Your task to perform on an android device: turn on the 12-hour format for clock Image 0: 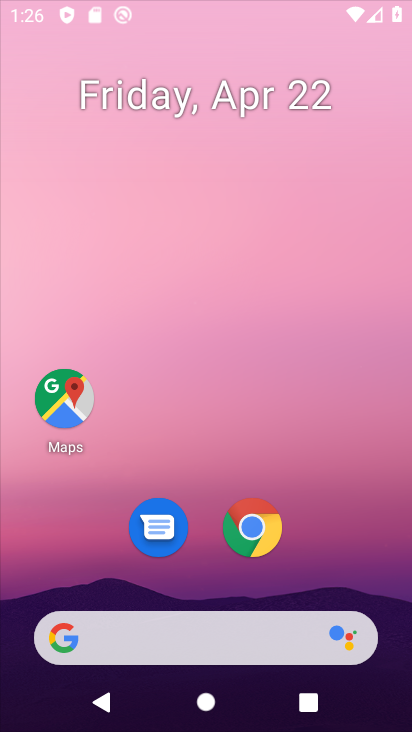
Step 0: click (250, 171)
Your task to perform on an android device: turn on the 12-hour format for clock Image 1: 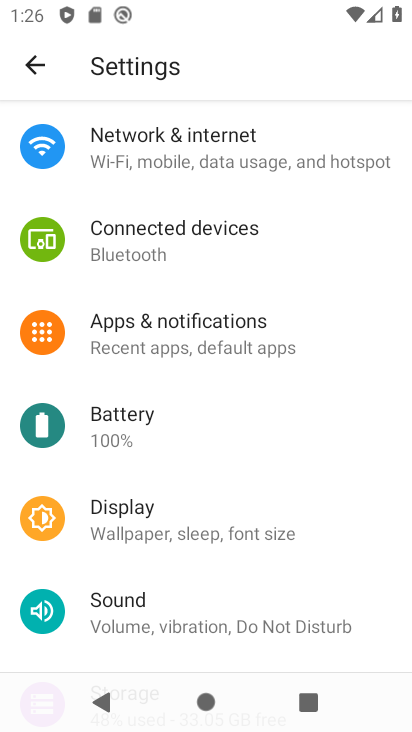
Step 1: click (215, 368)
Your task to perform on an android device: turn on the 12-hour format for clock Image 2: 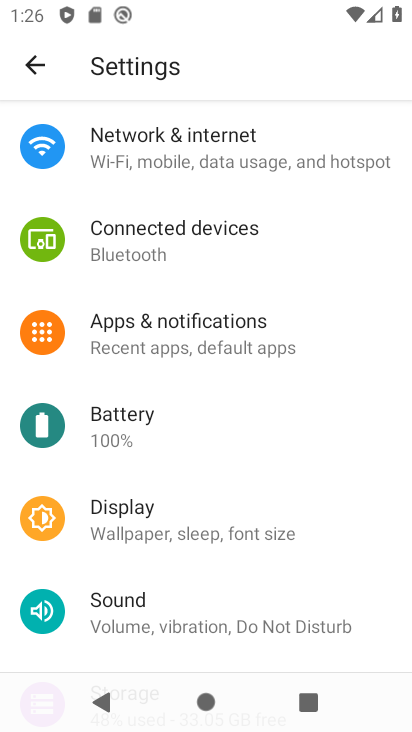
Step 2: drag from (196, 429) to (226, 96)
Your task to perform on an android device: turn on the 12-hour format for clock Image 3: 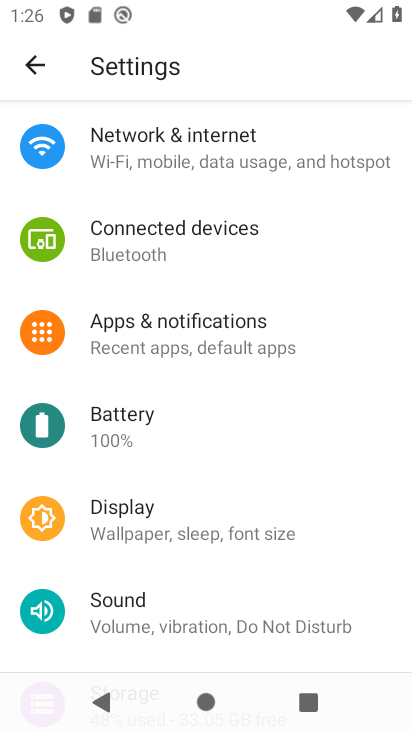
Step 3: press home button
Your task to perform on an android device: turn on the 12-hour format for clock Image 4: 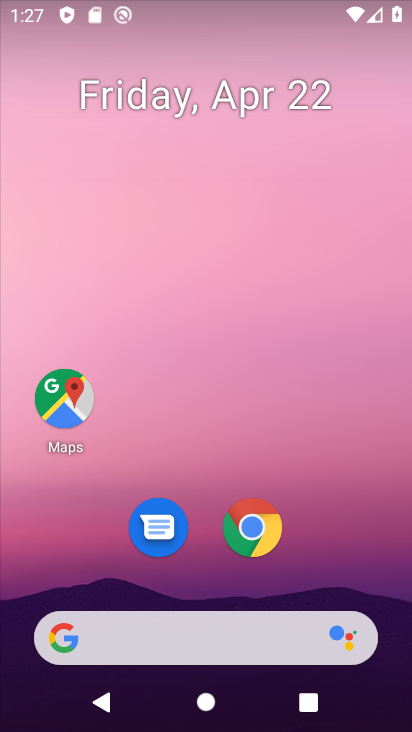
Step 4: drag from (207, 525) to (250, 186)
Your task to perform on an android device: turn on the 12-hour format for clock Image 5: 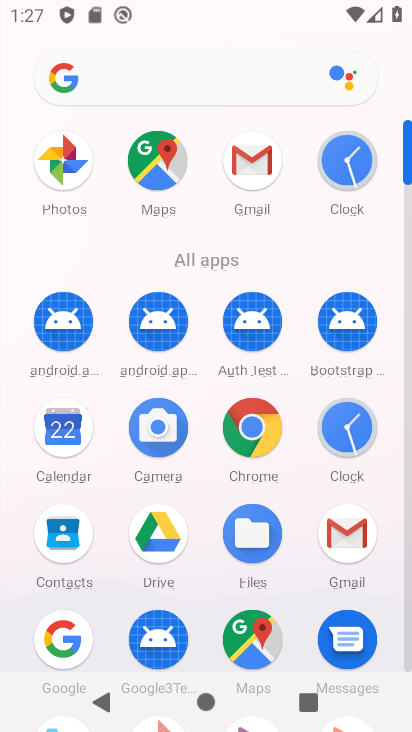
Step 5: drag from (206, 611) to (213, 235)
Your task to perform on an android device: turn on the 12-hour format for clock Image 6: 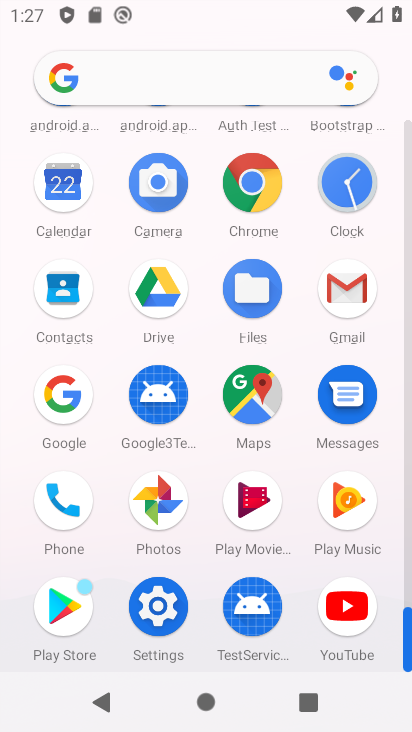
Step 6: click (354, 179)
Your task to perform on an android device: turn on the 12-hour format for clock Image 7: 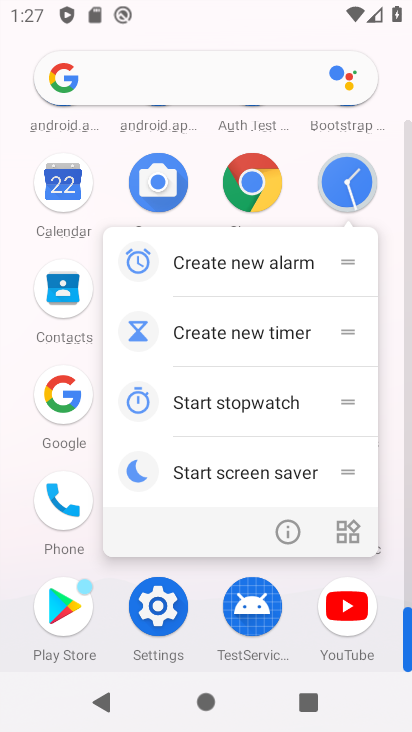
Step 7: click (286, 512)
Your task to perform on an android device: turn on the 12-hour format for clock Image 8: 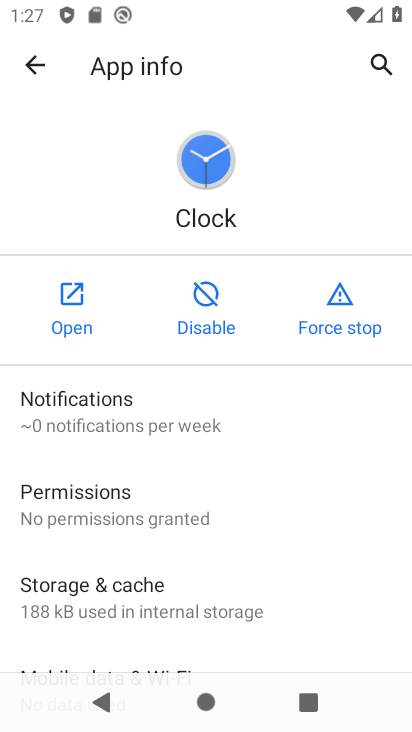
Step 8: click (77, 312)
Your task to perform on an android device: turn on the 12-hour format for clock Image 9: 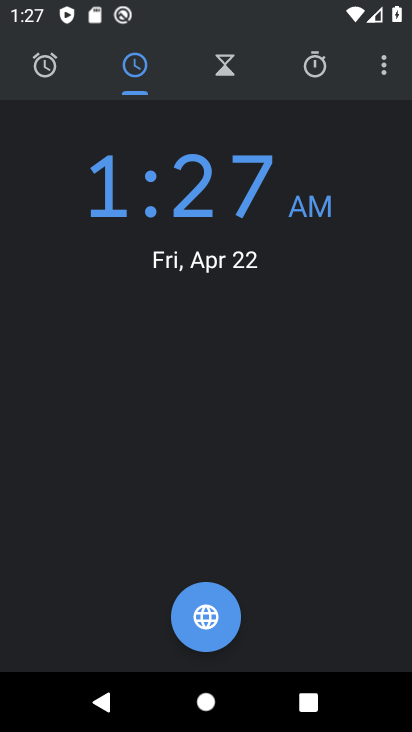
Step 9: click (382, 59)
Your task to perform on an android device: turn on the 12-hour format for clock Image 10: 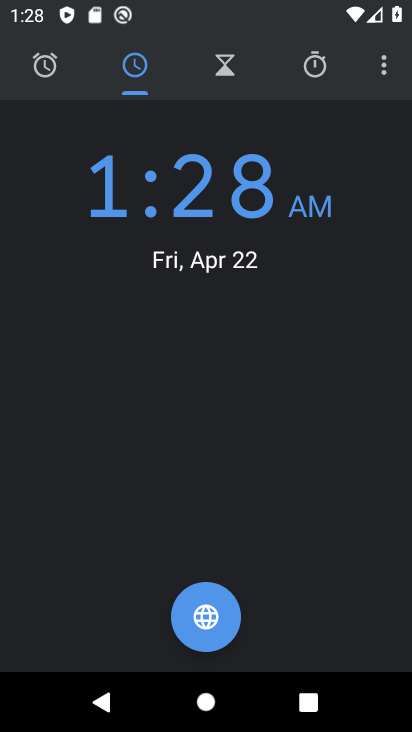
Step 10: click (392, 79)
Your task to perform on an android device: turn on the 12-hour format for clock Image 11: 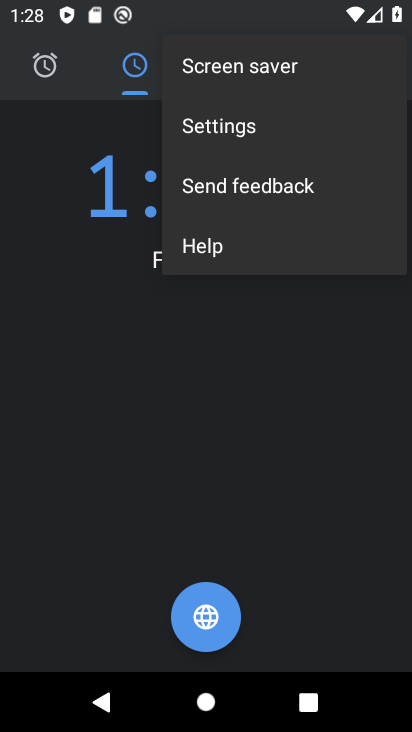
Step 11: click (229, 123)
Your task to perform on an android device: turn on the 12-hour format for clock Image 12: 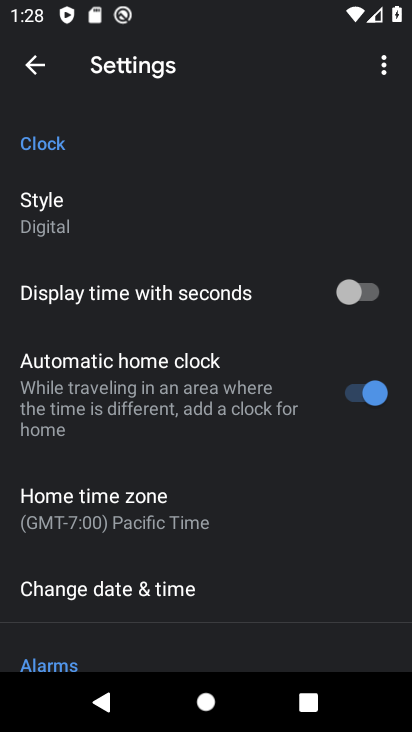
Step 12: click (175, 599)
Your task to perform on an android device: turn on the 12-hour format for clock Image 13: 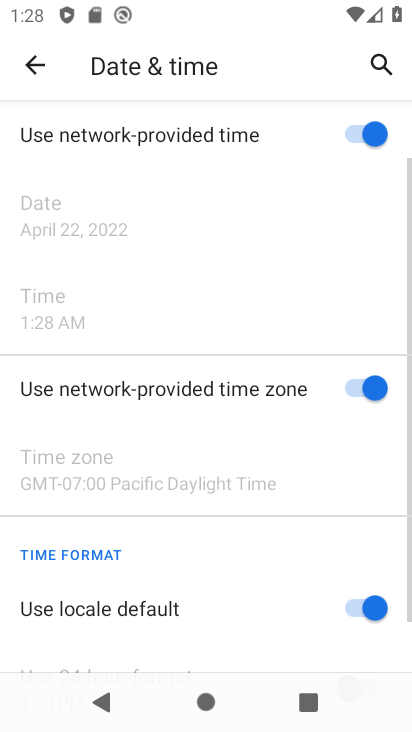
Step 13: drag from (233, 548) to (277, 102)
Your task to perform on an android device: turn on the 12-hour format for clock Image 14: 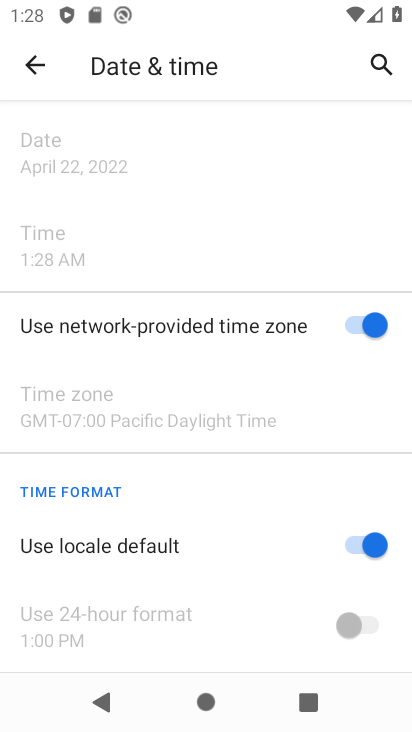
Step 14: click (363, 552)
Your task to perform on an android device: turn on the 12-hour format for clock Image 15: 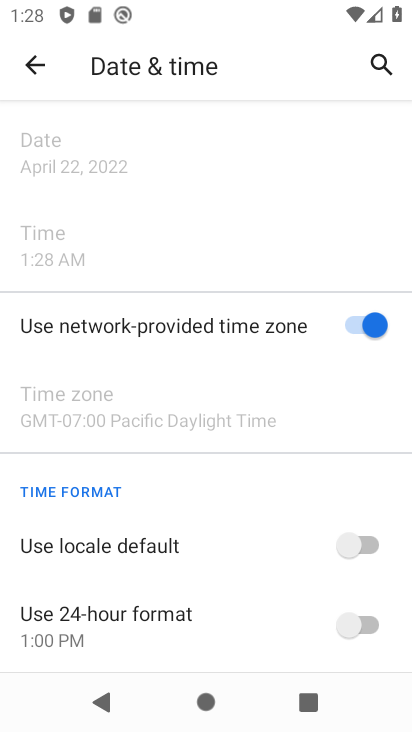
Step 15: task complete